Your task to perform on an android device: toggle location history Image 0: 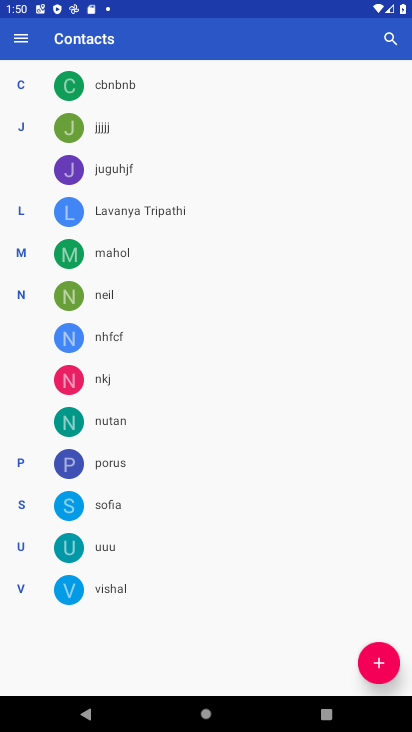
Step 0: press home button
Your task to perform on an android device: toggle location history Image 1: 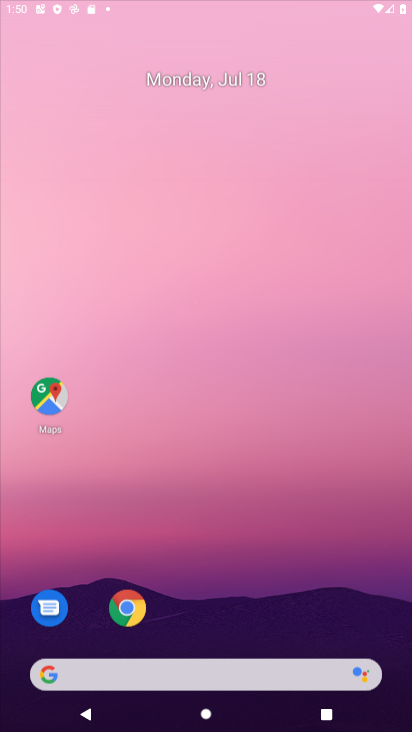
Step 1: drag from (388, 633) to (241, 4)
Your task to perform on an android device: toggle location history Image 2: 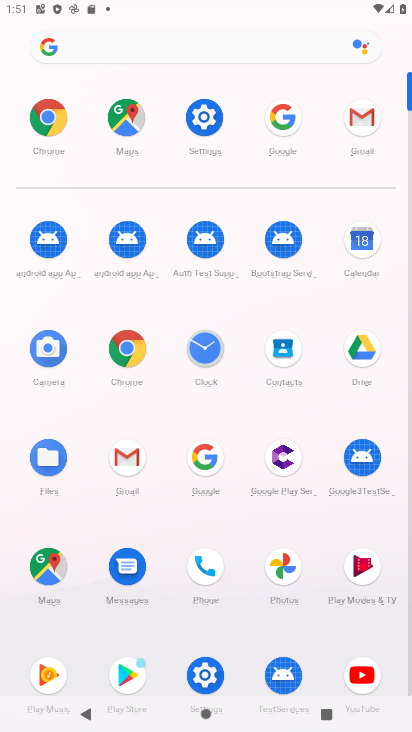
Step 2: click (203, 673)
Your task to perform on an android device: toggle location history Image 3: 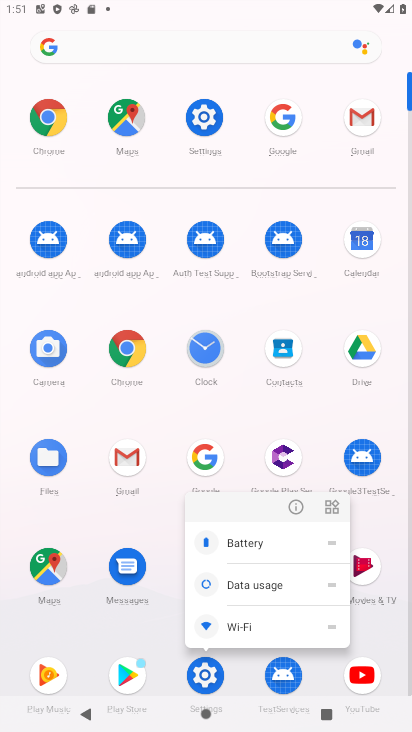
Step 3: click (203, 674)
Your task to perform on an android device: toggle location history Image 4: 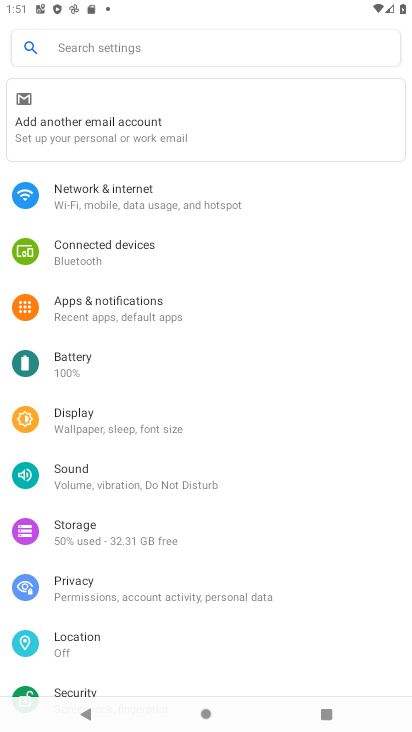
Step 4: click (91, 636)
Your task to perform on an android device: toggle location history Image 5: 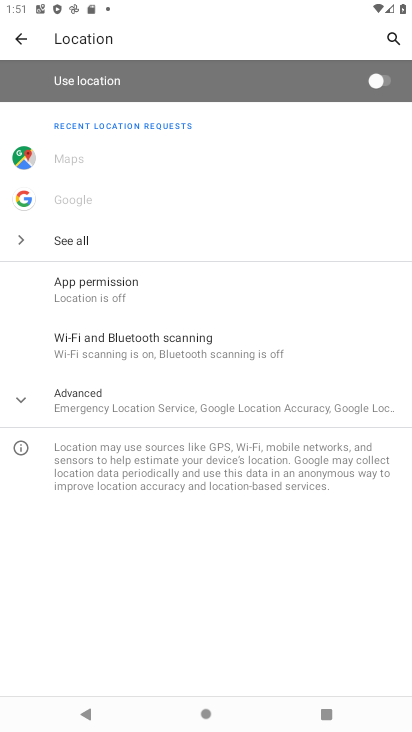
Step 5: click (154, 404)
Your task to perform on an android device: toggle location history Image 6: 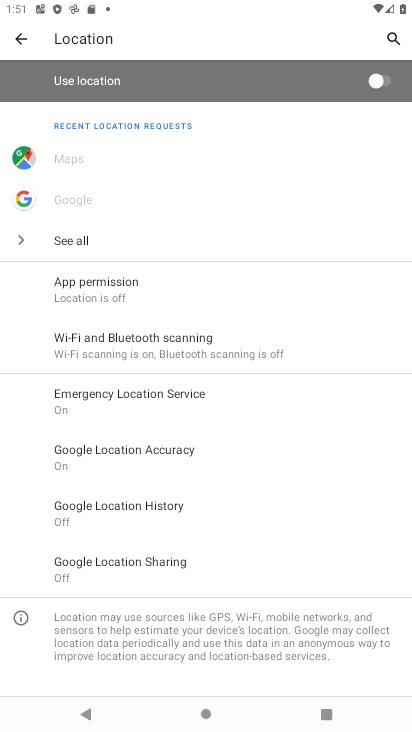
Step 6: click (120, 513)
Your task to perform on an android device: toggle location history Image 7: 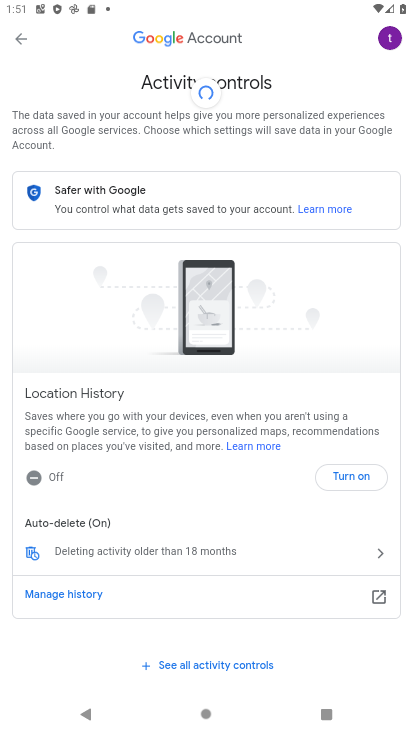
Step 7: click (365, 478)
Your task to perform on an android device: toggle location history Image 8: 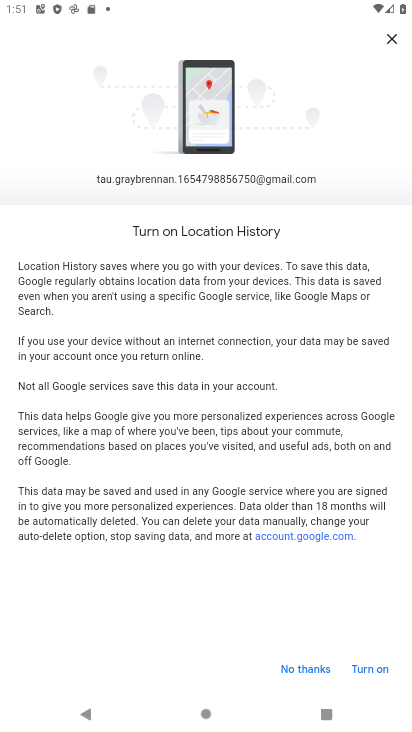
Step 8: task complete